Your task to perform on an android device: Open settings on Google Maps Image 0: 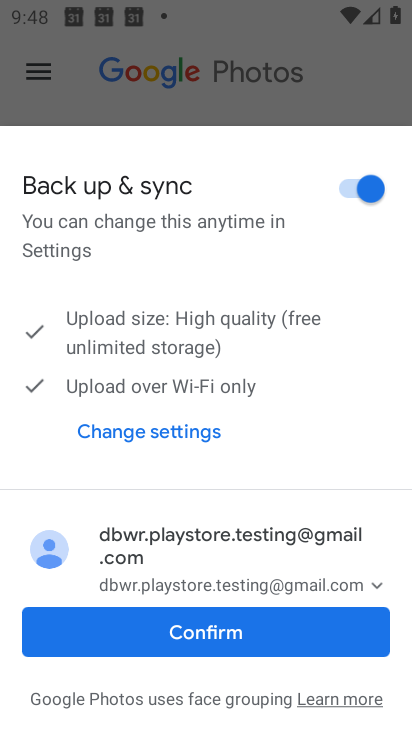
Step 0: press home button
Your task to perform on an android device: Open settings on Google Maps Image 1: 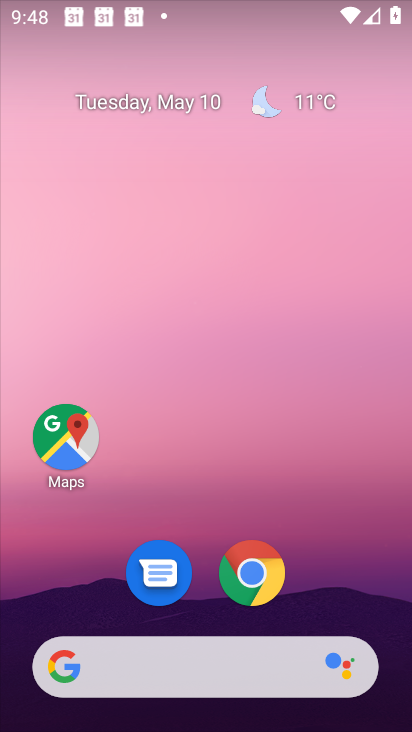
Step 1: click (83, 431)
Your task to perform on an android device: Open settings on Google Maps Image 2: 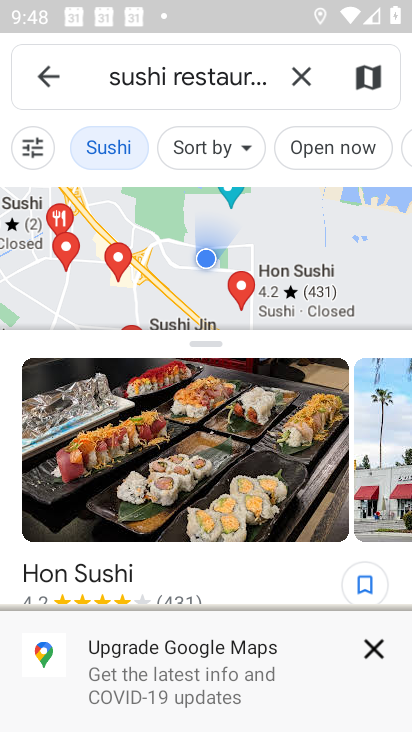
Step 2: click (300, 87)
Your task to perform on an android device: Open settings on Google Maps Image 3: 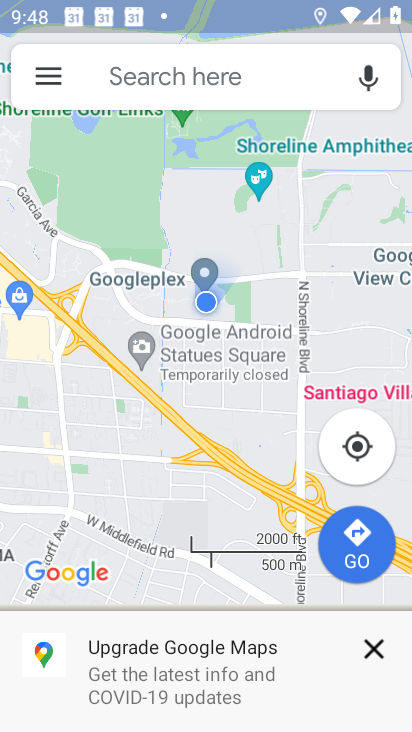
Step 3: click (54, 85)
Your task to perform on an android device: Open settings on Google Maps Image 4: 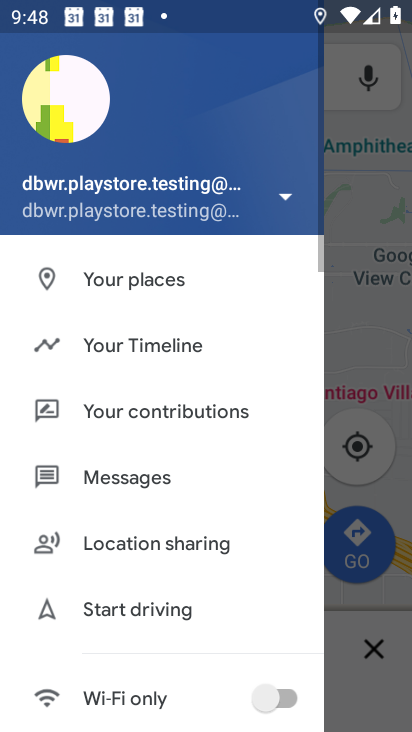
Step 4: drag from (139, 595) to (182, 220)
Your task to perform on an android device: Open settings on Google Maps Image 5: 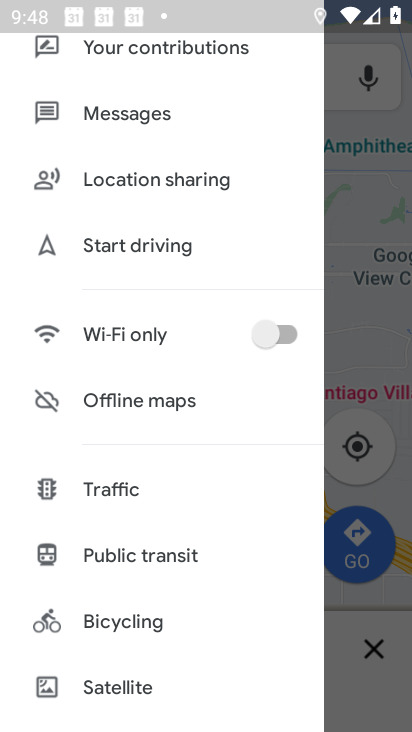
Step 5: drag from (203, 573) to (202, 211)
Your task to perform on an android device: Open settings on Google Maps Image 6: 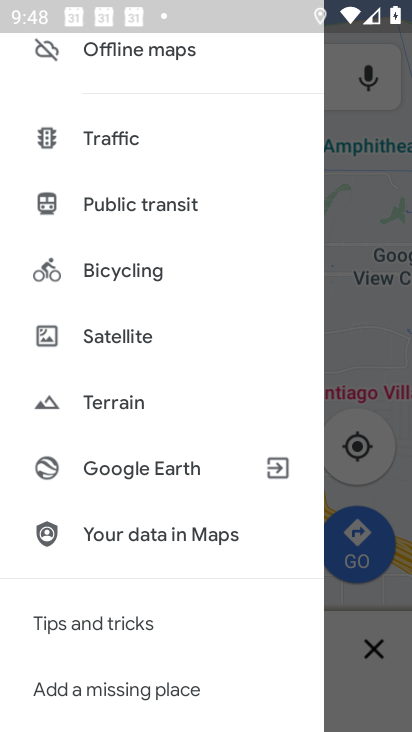
Step 6: drag from (119, 683) to (152, 319)
Your task to perform on an android device: Open settings on Google Maps Image 7: 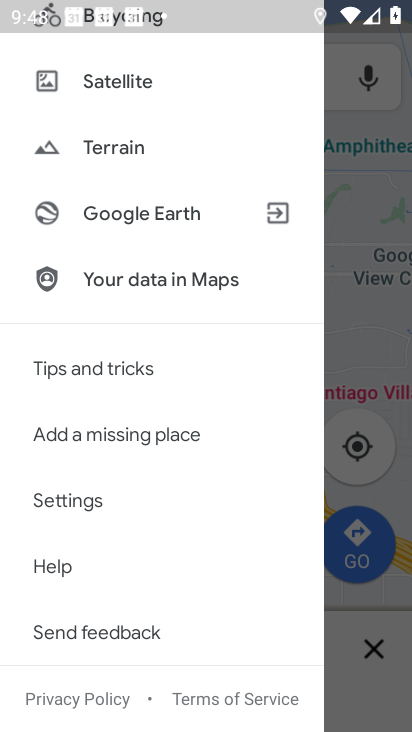
Step 7: click (109, 499)
Your task to perform on an android device: Open settings on Google Maps Image 8: 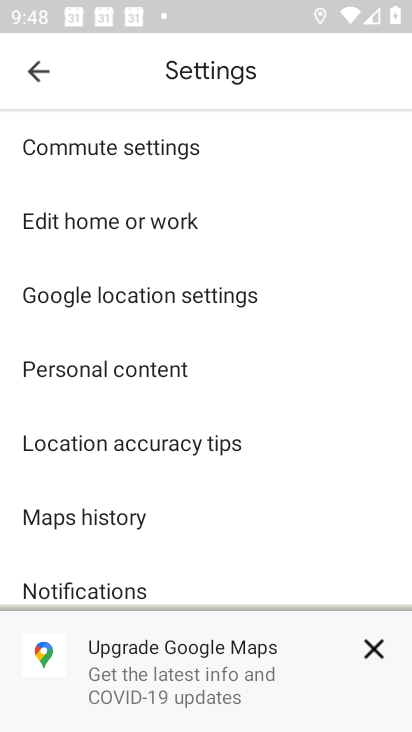
Step 8: task complete